Your task to perform on an android device: create a new album in the google photos Image 0: 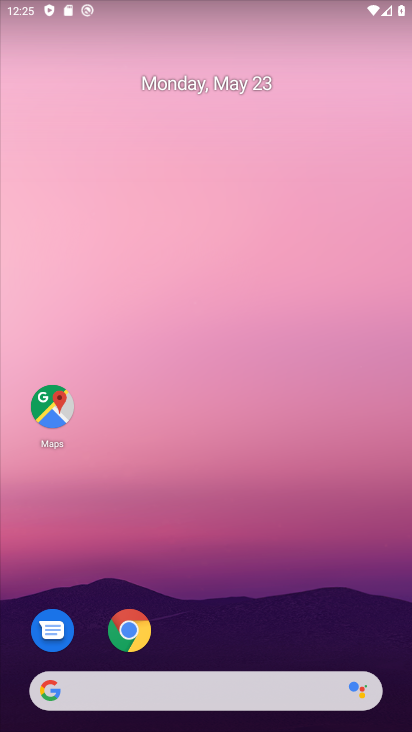
Step 0: drag from (259, 534) to (235, 38)
Your task to perform on an android device: create a new album in the google photos Image 1: 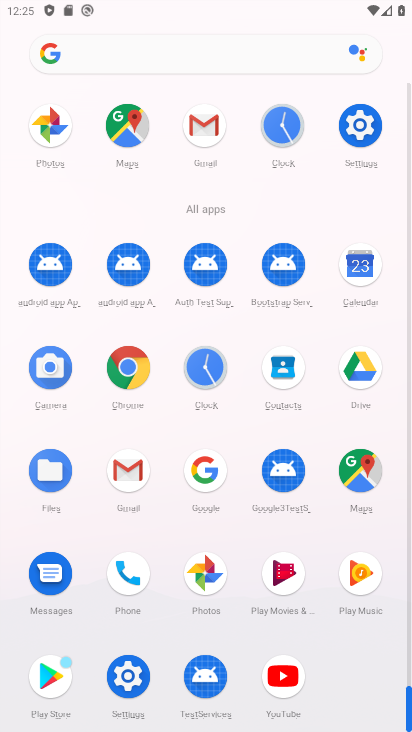
Step 1: drag from (8, 483) to (4, 194)
Your task to perform on an android device: create a new album in the google photos Image 2: 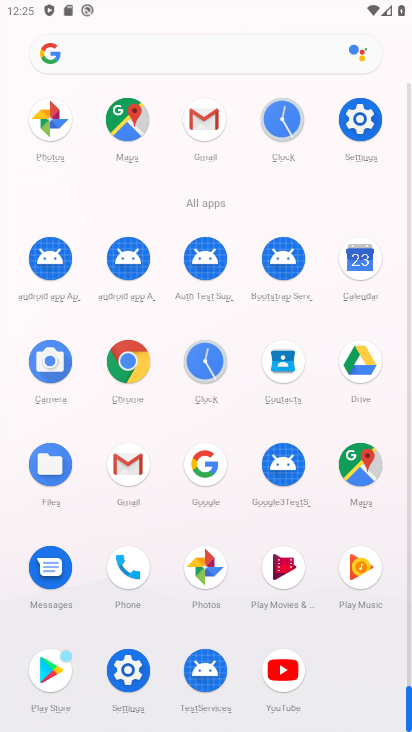
Step 2: click (203, 562)
Your task to perform on an android device: create a new album in the google photos Image 3: 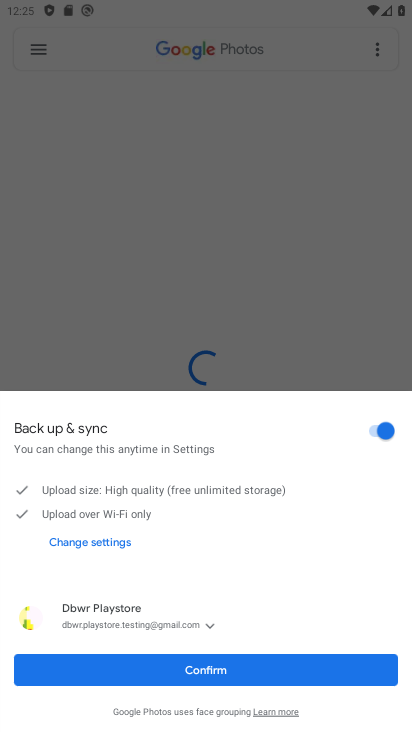
Step 3: click (232, 671)
Your task to perform on an android device: create a new album in the google photos Image 4: 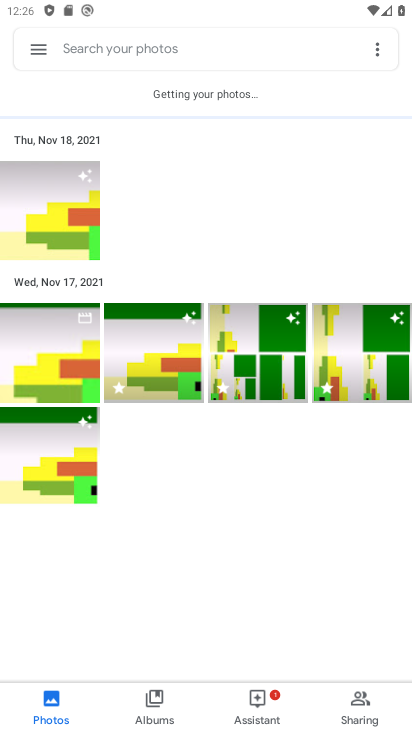
Step 4: task complete